Your task to perform on an android device: Go to Wikipedia Image 0: 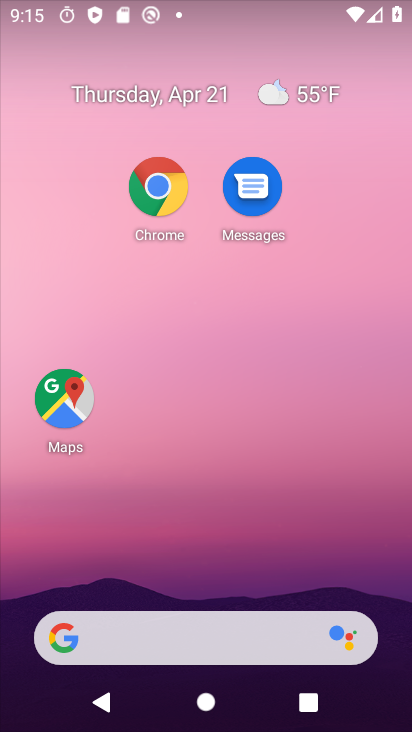
Step 0: click (158, 210)
Your task to perform on an android device: Go to Wikipedia Image 1: 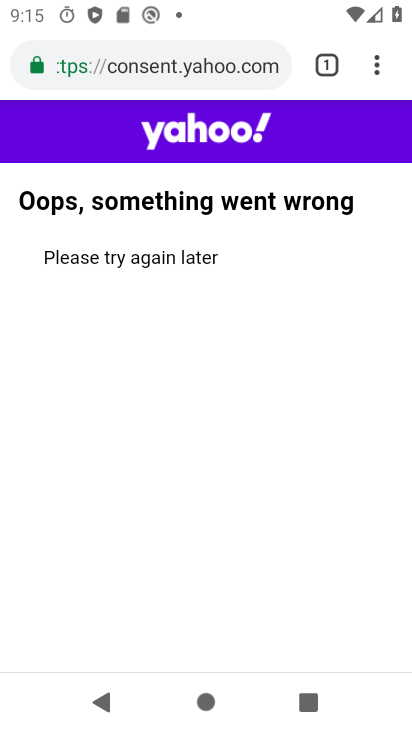
Step 1: drag from (229, 84) to (228, 140)
Your task to perform on an android device: Go to Wikipedia Image 2: 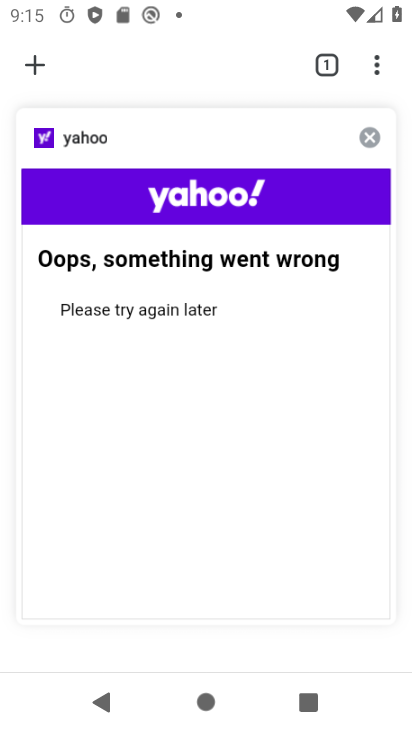
Step 2: click (35, 61)
Your task to perform on an android device: Go to Wikipedia Image 3: 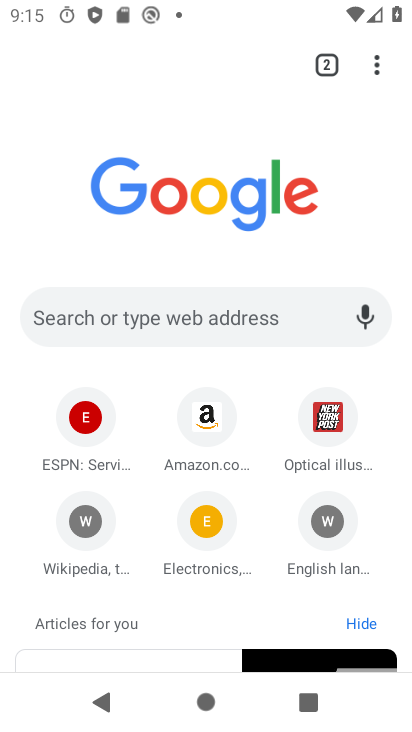
Step 3: click (84, 524)
Your task to perform on an android device: Go to Wikipedia Image 4: 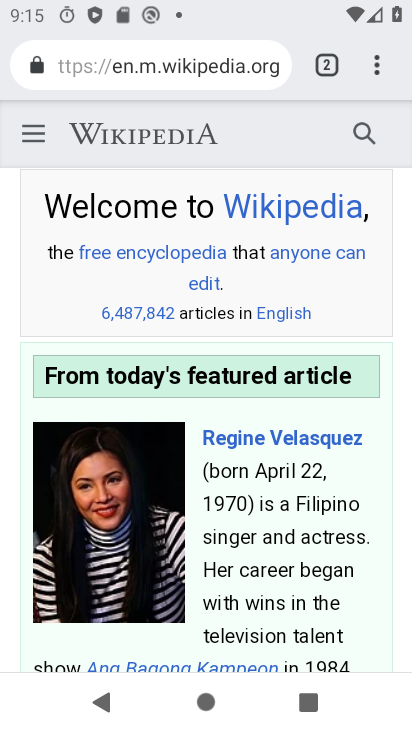
Step 4: task complete